Your task to perform on an android device: delete location history Image 0: 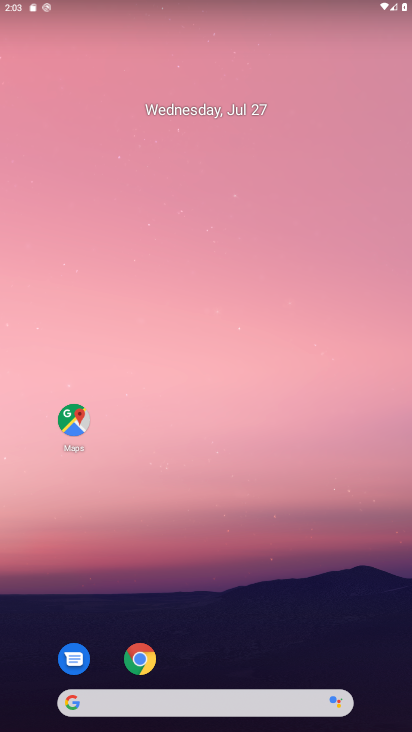
Step 0: drag from (237, 538) to (221, 0)
Your task to perform on an android device: delete location history Image 1: 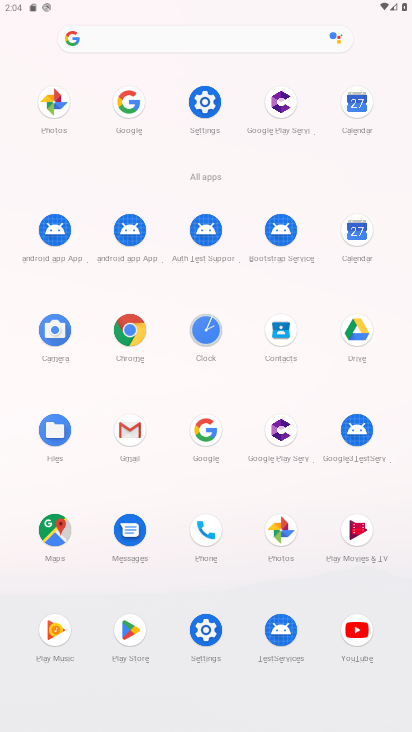
Step 1: click (44, 542)
Your task to perform on an android device: delete location history Image 2: 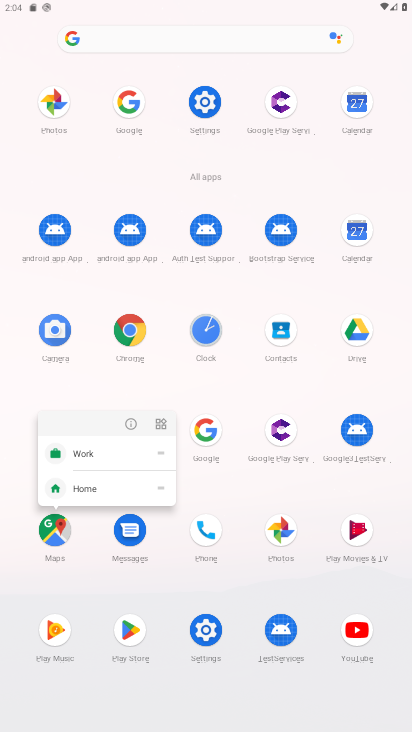
Step 2: click (41, 524)
Your task to perform on an android device: delete location history Image 3: 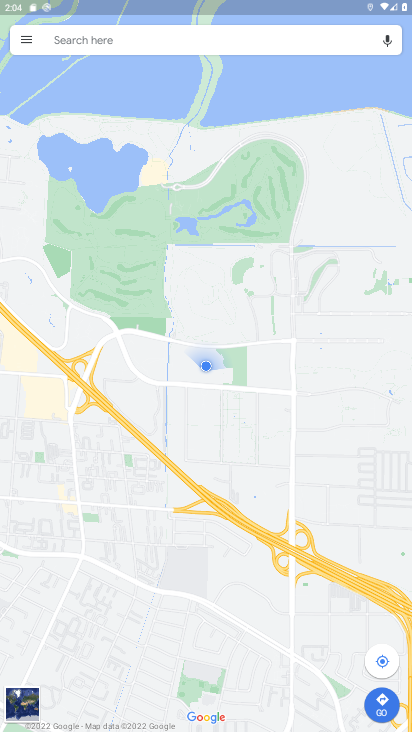
Step 3: click (22, 34)
Your task to perform on an android device: delete location history Image 4: 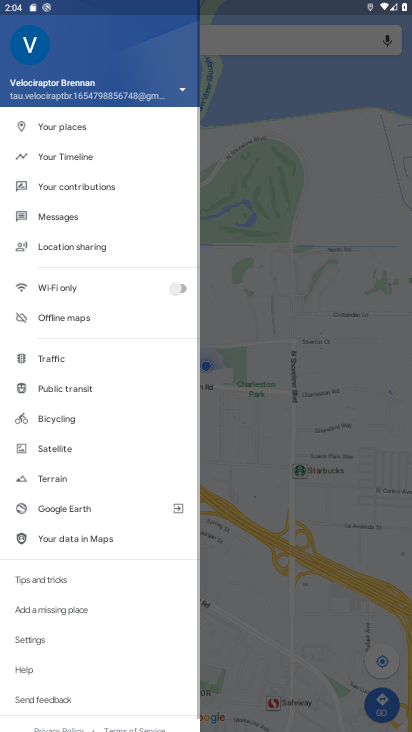
Step 4: click (73, 161)
Your task to perform on an android device: delete location history Image 5: 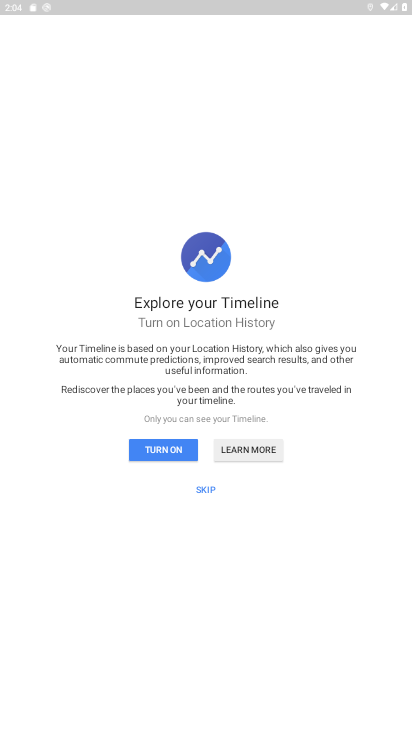
Step 5: click (209, 483)
Your task to perform on an android device: delete location history Image 6: 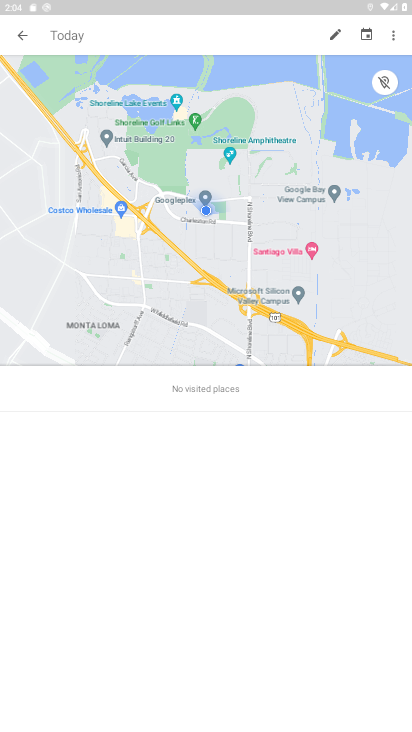
Step 6: click (392, 39)
Your task to perform on an android device: delete location history Image 7: 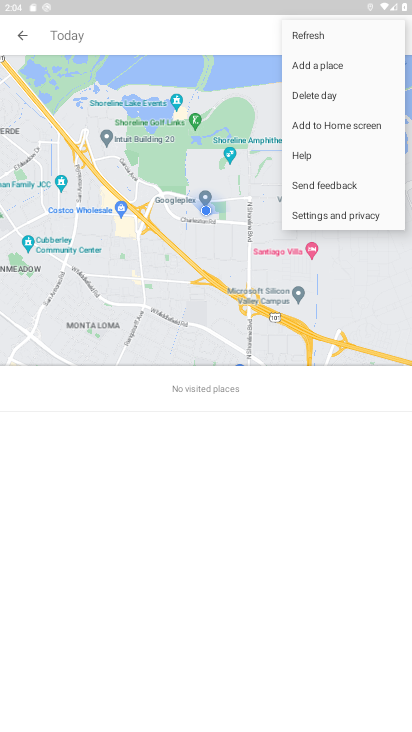
Step 7: click (344, 220)
Your task to perform on an android device: delete location history Image 8: 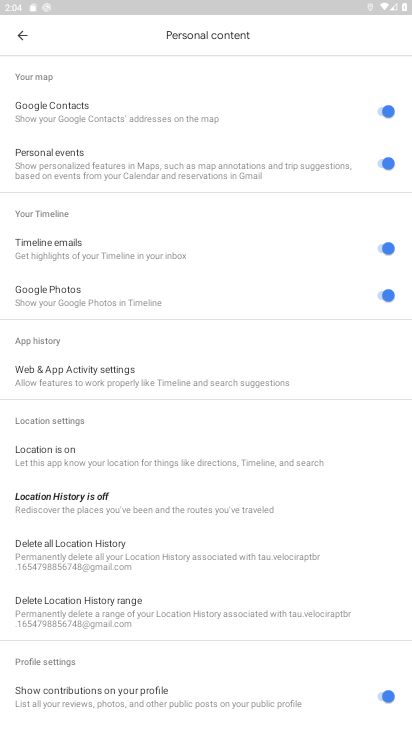
Step 8: click (83, 540)
Your task to perform on an android device: delete location history Image 9: 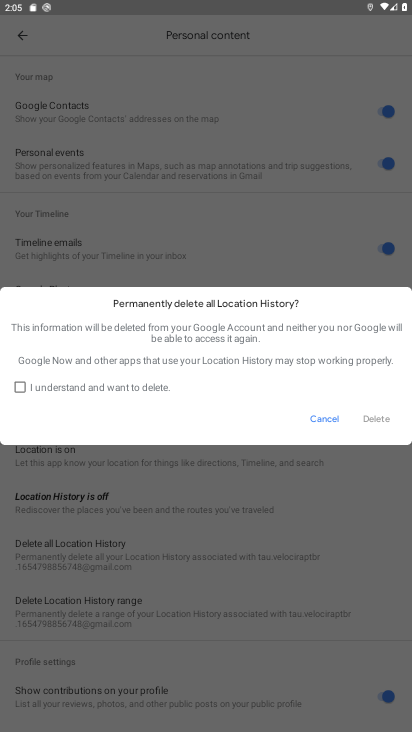
Step 9: click (25, 383)
Your task to perform on an android device: delete location history Image 10: 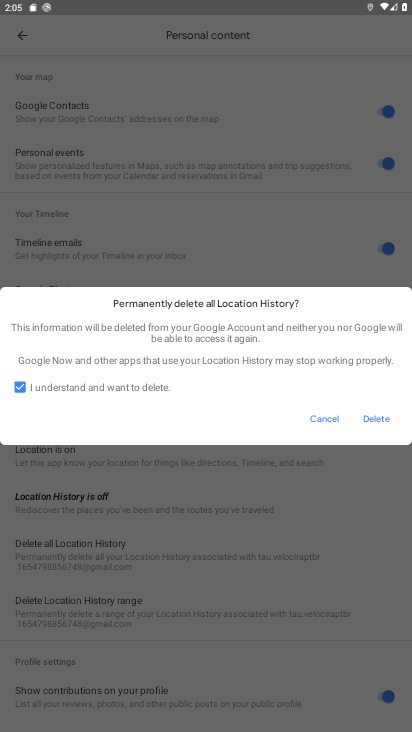
Step 10: click (372, 421)
Your task to perform on an android device: delete location history Image 11: 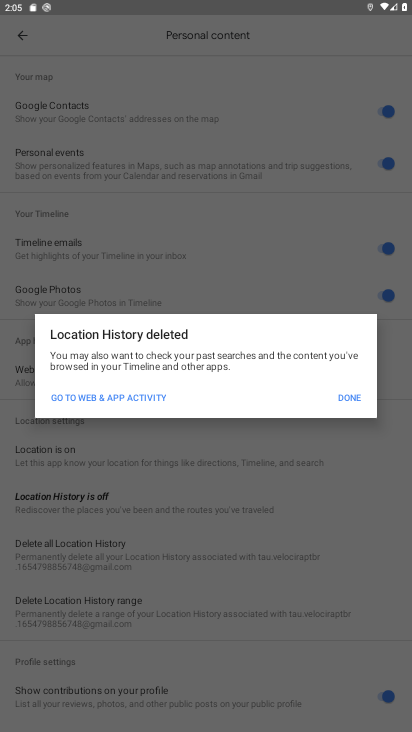
Step 11: click (359, 401)
Your task to perform on an android device: delete location history Image 12: 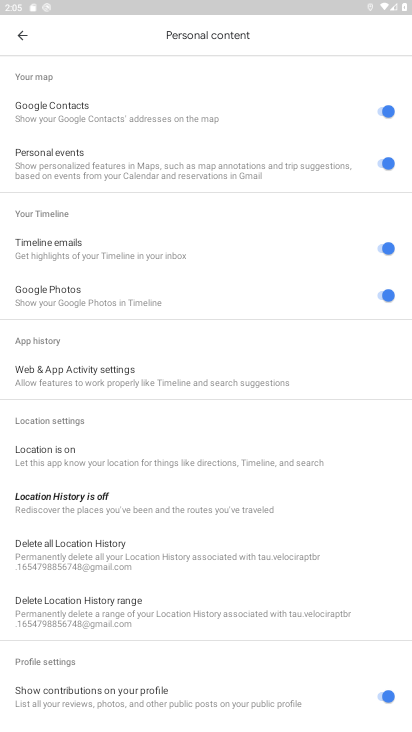
Step 12: task complete